Your task to perform on an android device: install app "Contacts" Image 0: 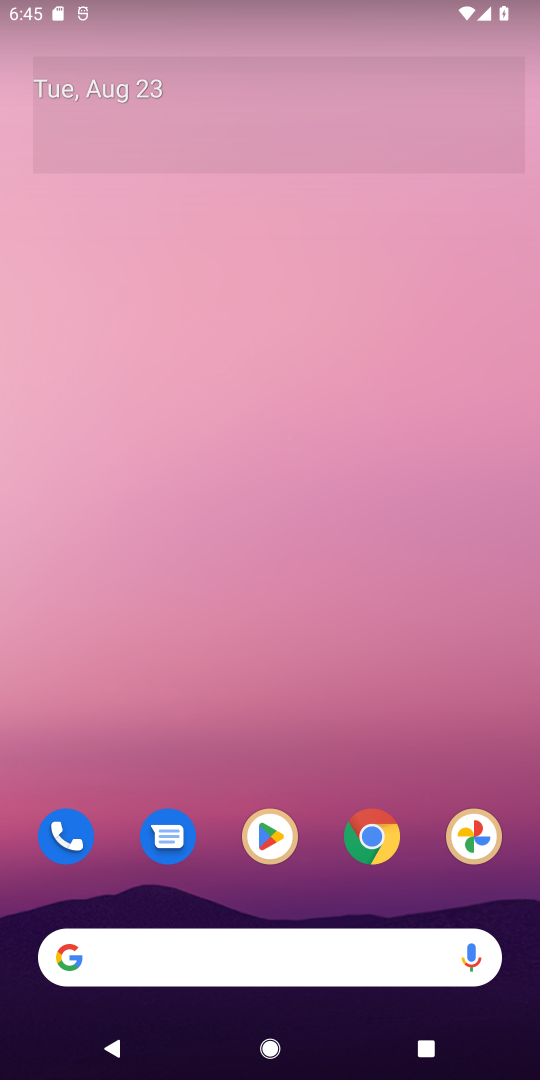
Step 0: click (269, 837)
Your task to perform on an android device: install app "Contacts" Image 1: 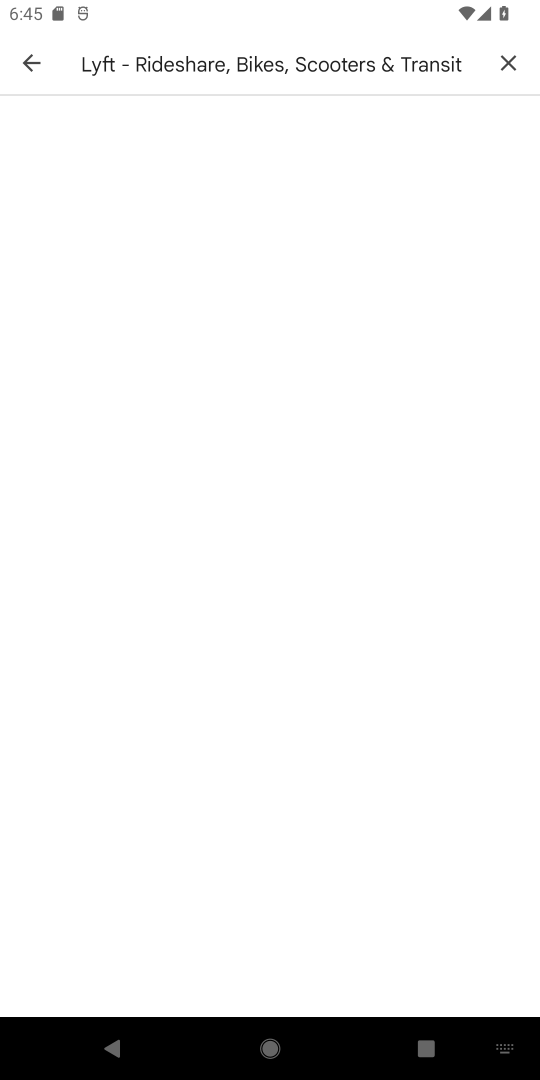
Step 1: click (511, 58)
Your task to perform on an android device: install app "Contacts" Image 2: 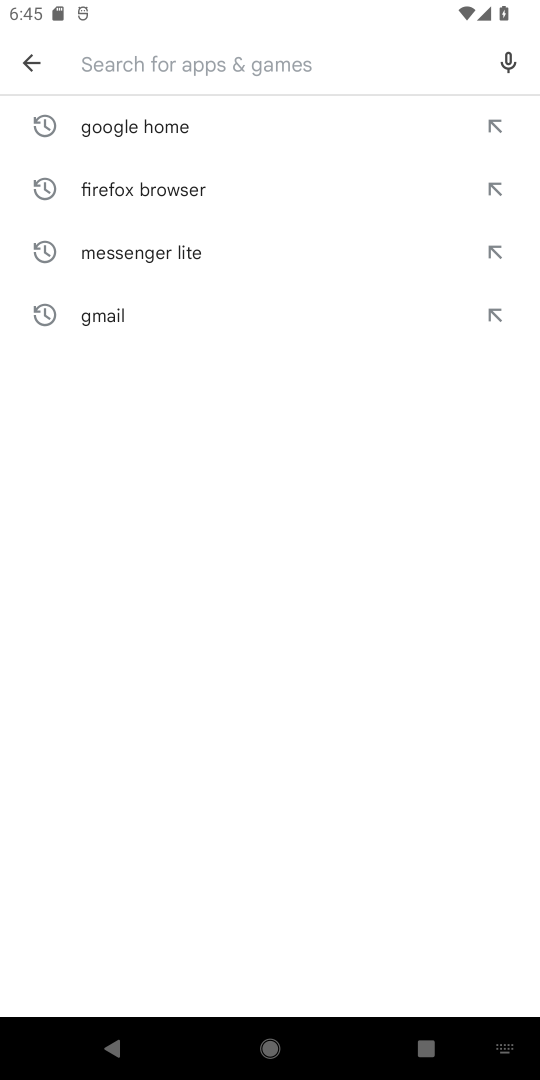
Step 2: type "Contacts"
Your task to perform on an android device: install app "Contacts" Image 3: 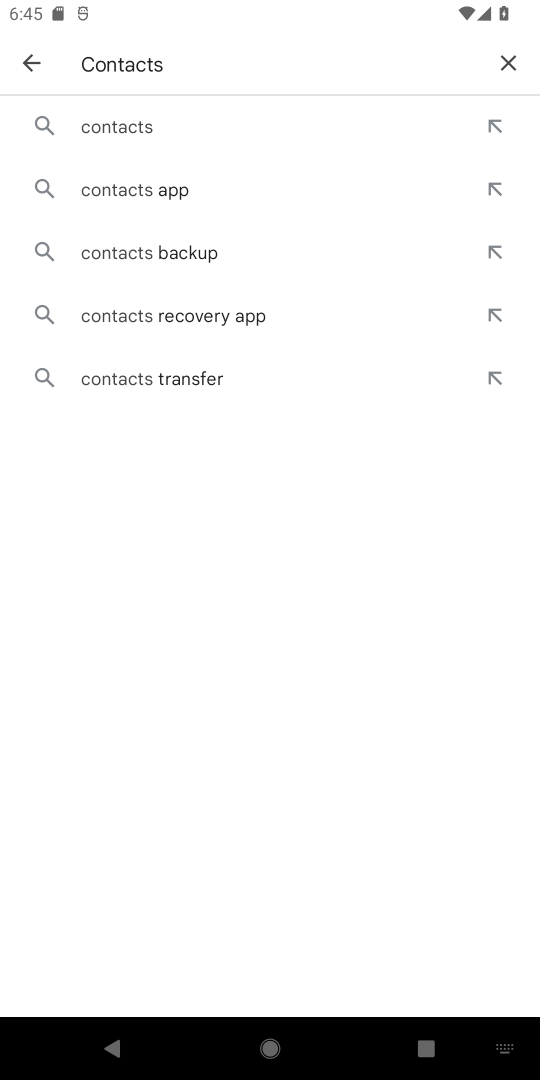
Step 3: click (174, 131)
Your task to perform on an android device: install app "Contacts" Image 4: 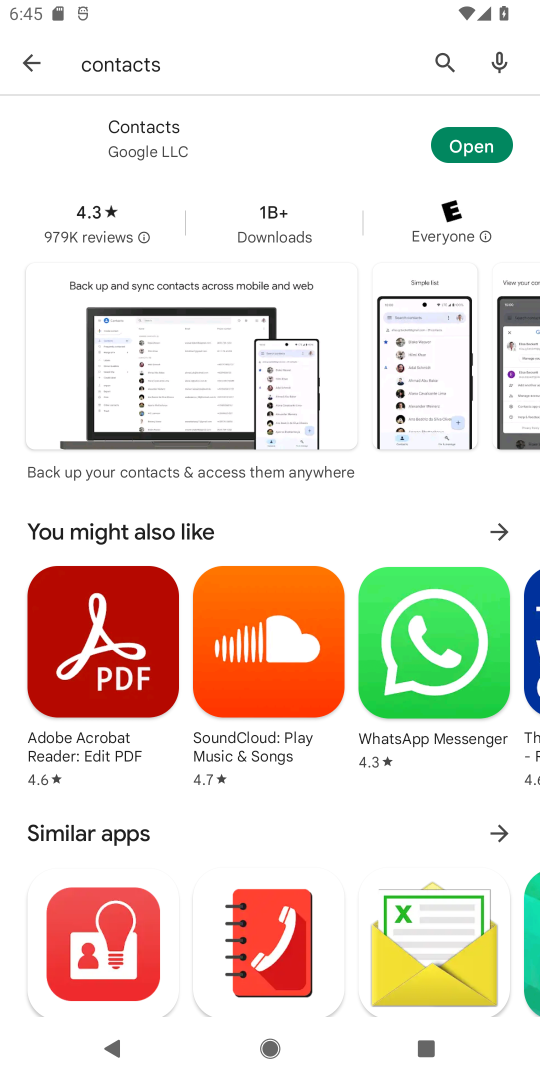
Step 4: task complete